Your task to perform on an android device: turn on sleep mode Image 0: 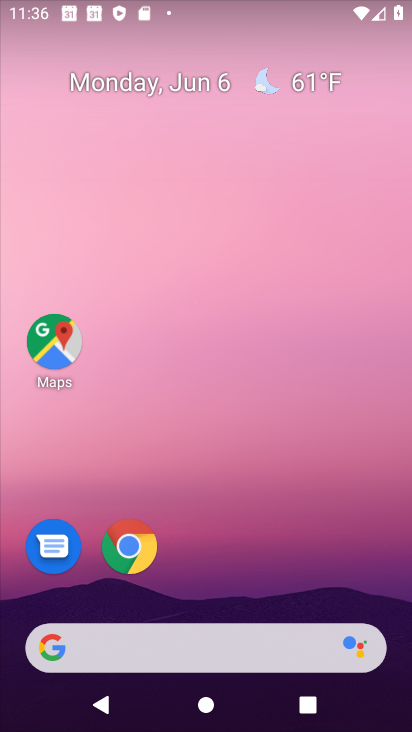
Step 0: drag from (196, 555) to (299, 35)
Your task to perform on an android device: turn on sleep mode Image 1: 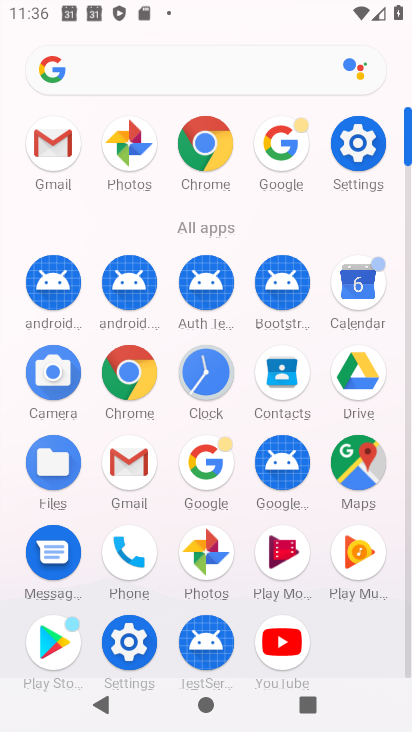
Step 1: click (371, 140)
Your task to perform on an android device: turn on sleep mode Image 2: 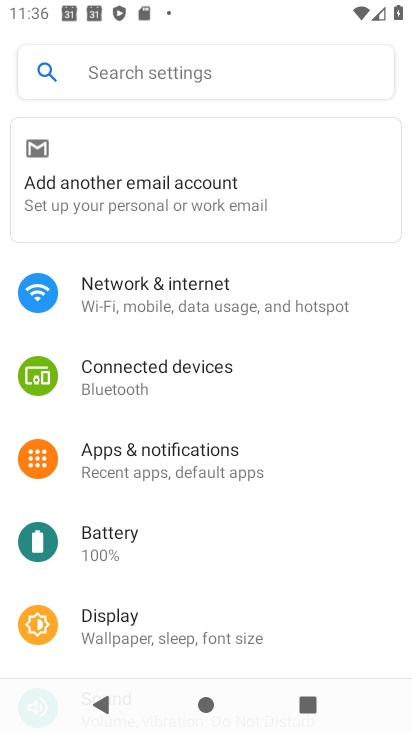
Step 2: click (118, 68)
Your task to perform on an android device: turn on sleep mode Image 3: 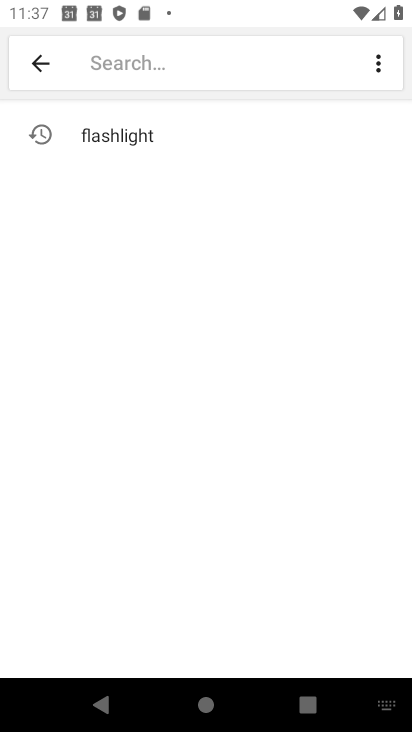
Step 3: type "sleep mode"
Your task to perform on an android device: turn on sleep mode Image 4: 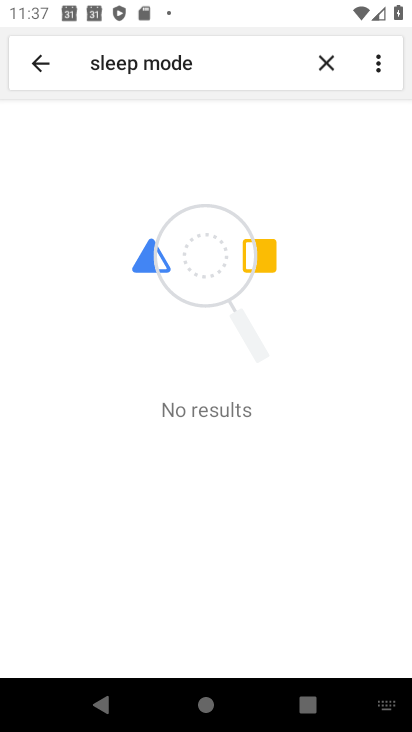
Step 4: task complete